Your task to perform on an android device: check data usage Image 0: 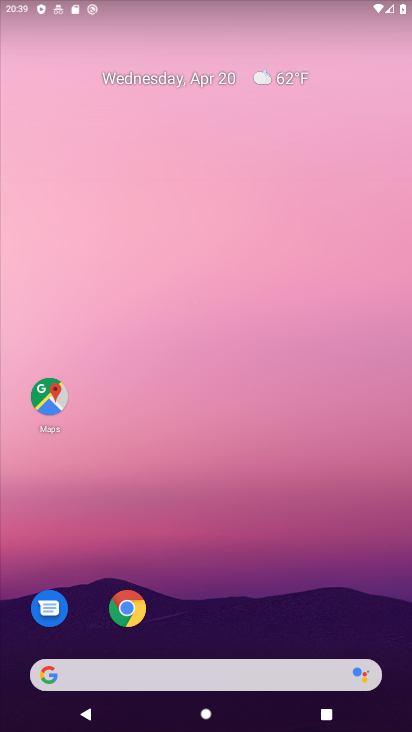
Step 0: drag from (274, 0) to (247, 461)
Your task to perform on an android device: check data usage Image 1: 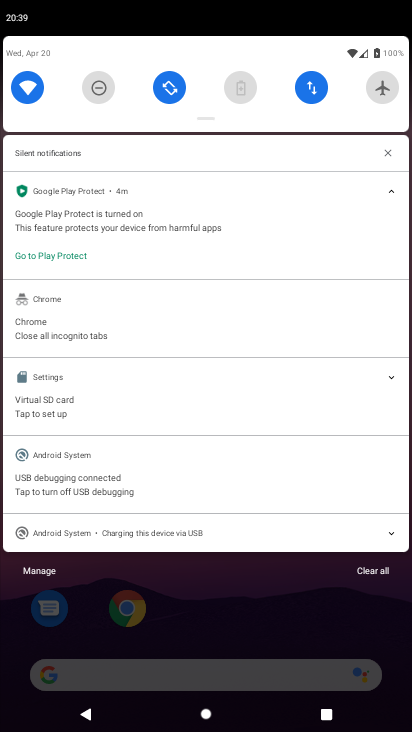
Step 1: click (309, 97)
Your task to perform on an android device: check data usage Image 2: 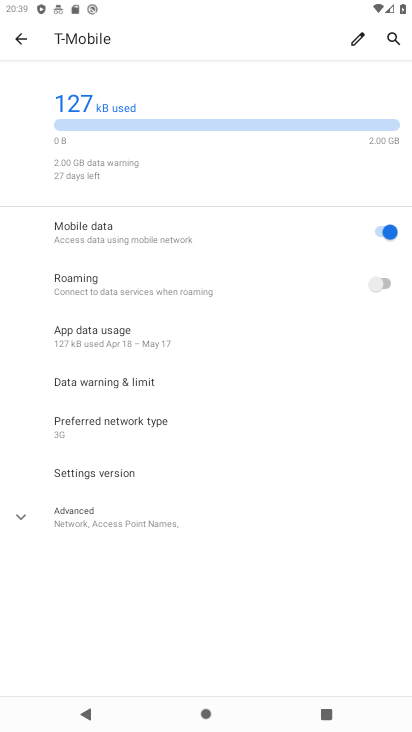
Step 2: task complete